Your task to perform on an android device: toggle improve location accuracy Image 0: 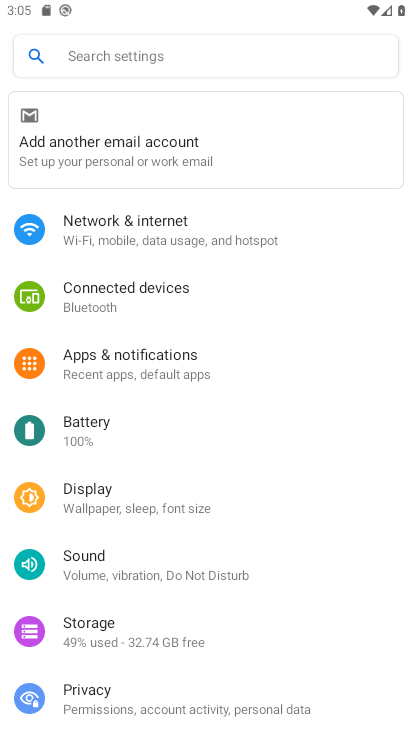
Step 0: drag from (261, 503) to (297, 181)
Your task to perform on an android device: toggle improve location accuracy Image 1: 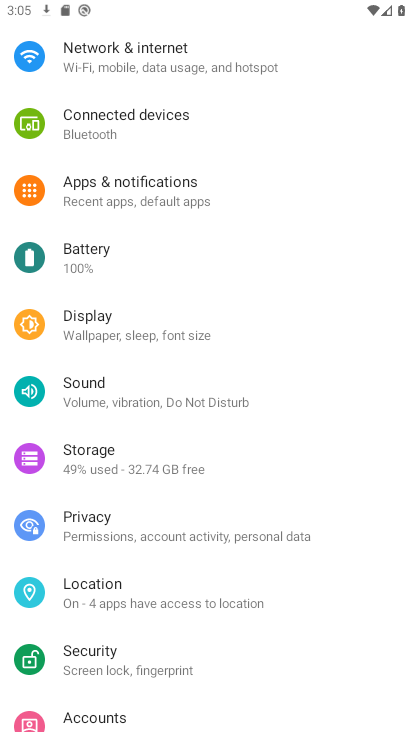
Step 1: click (175, 598)
Your task to perform on an android device: toggle improve location accuracy Image 2: 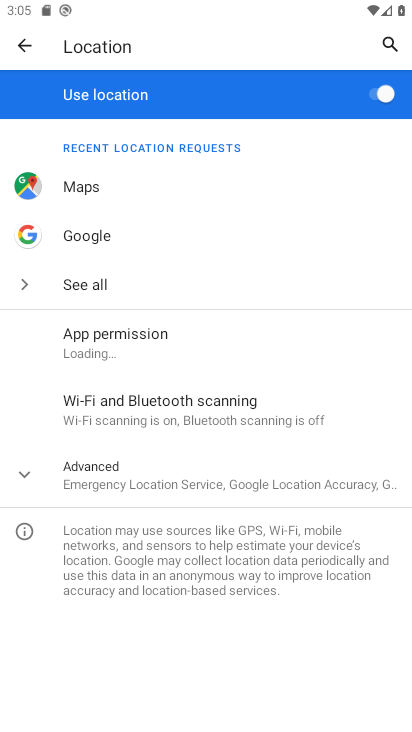
Step 2: click (136, 466)
Your task to perform on an android device: toggle improve location accuracy Image 3: 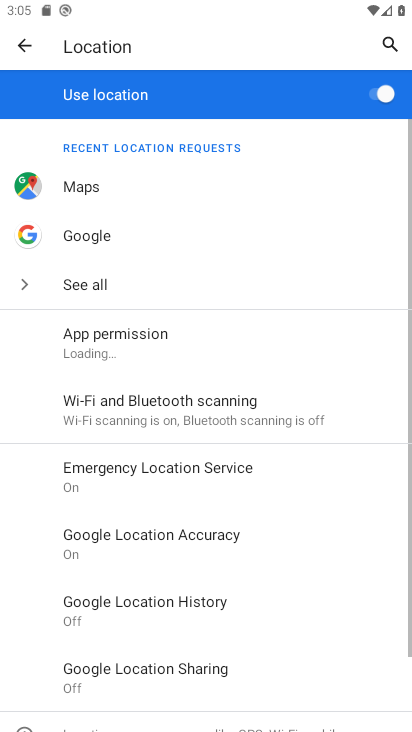
Step 3: drag from (136, 465) to (210, 70)
Your task to perform on an android device: toggle improve location accuracy Image 4: 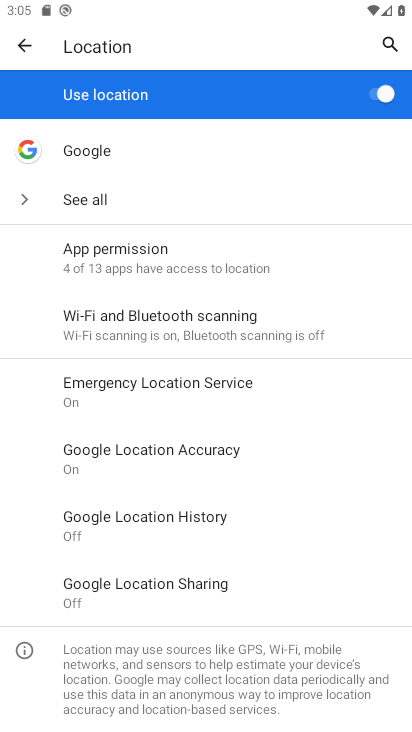
Step 4: click (183, 449)
Your task to perform on an android device: toggle improve location accuracy Image 5: 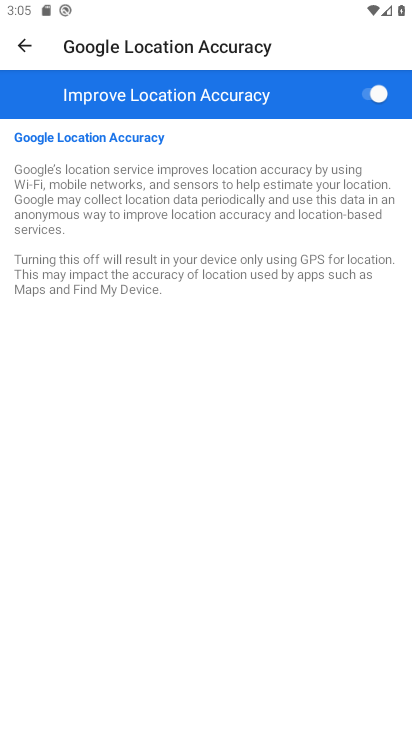
Step 5: drag from (255, 502) to (258, 142)
Your task to perform on an android device: toggle improve location accuracy Image 6: 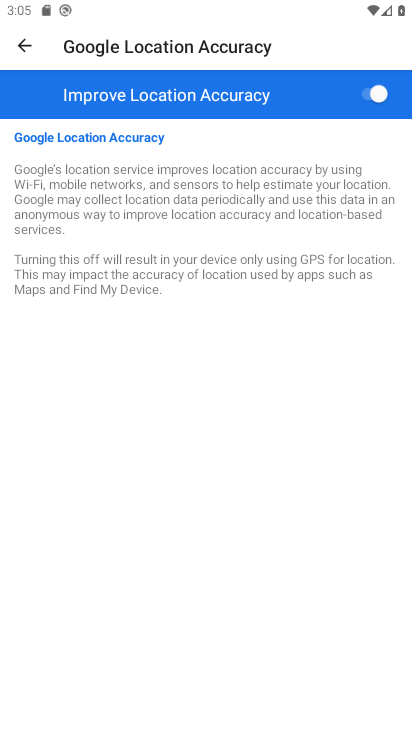
Step 6: drag from (247, 568) to (264, 260)
Your task to perform on an android device: toggle improve location accuracy Image 7: 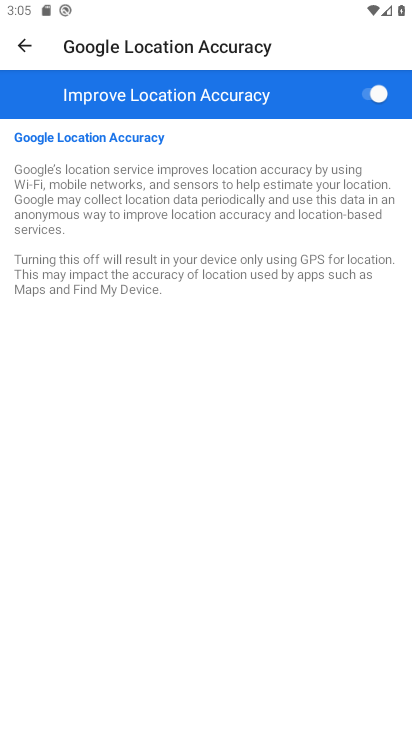
Step 7: drag from (262, 215) to (270, 676)
Your task to perform on an android device: toggle improve location accuracy Image 8: 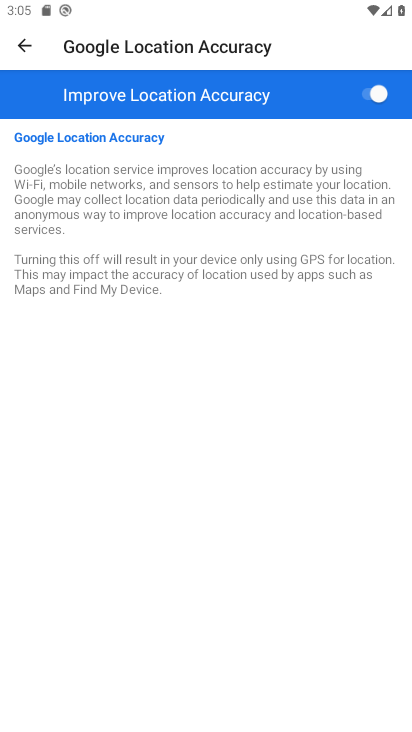
Step 8: click (381, 83)
Your task to perform on an android device: toggle improve location accuracy Image 9: 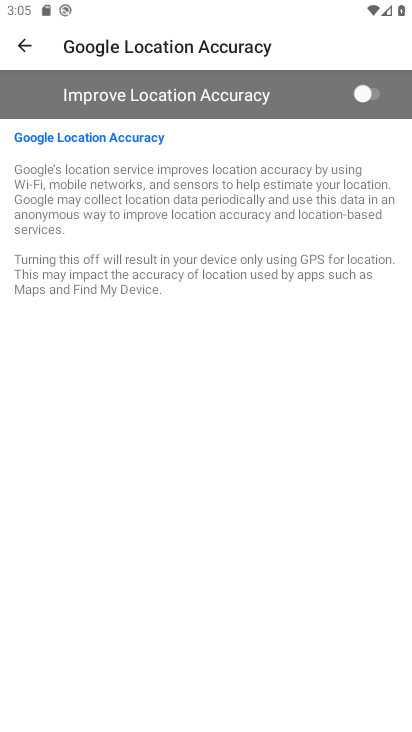
Step 9: task complete